Your task to perform on an android device: see sites visited before in the chrome app Image 0: 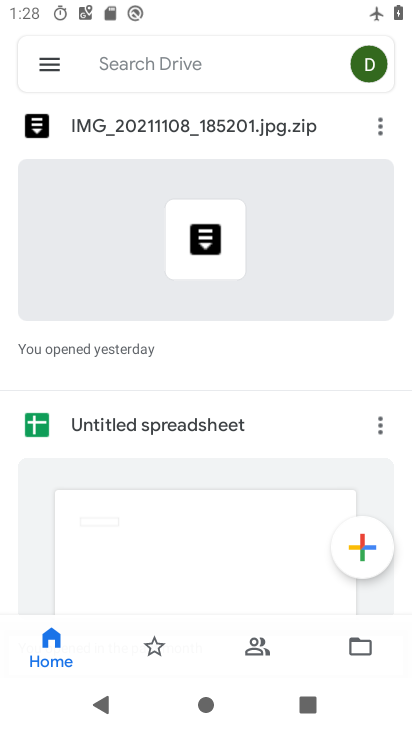
Step 0: press home button
Your task to perform on an android device: see sites visited before in the chrome app Image 1: 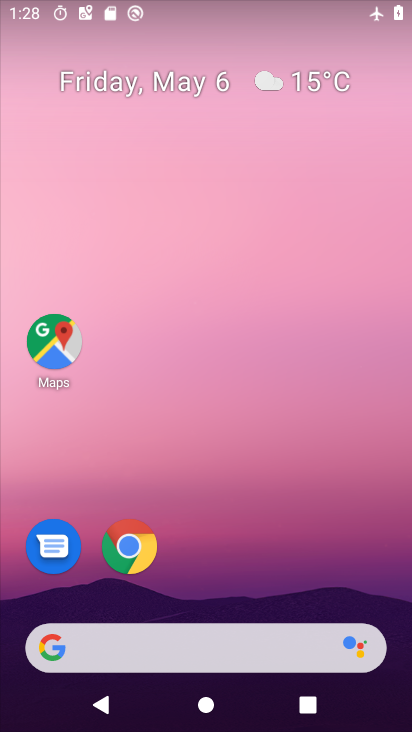
Step 1: click (129, 556)
Your task to perform on an android device: see sites visited before in the chrome app Image 2: 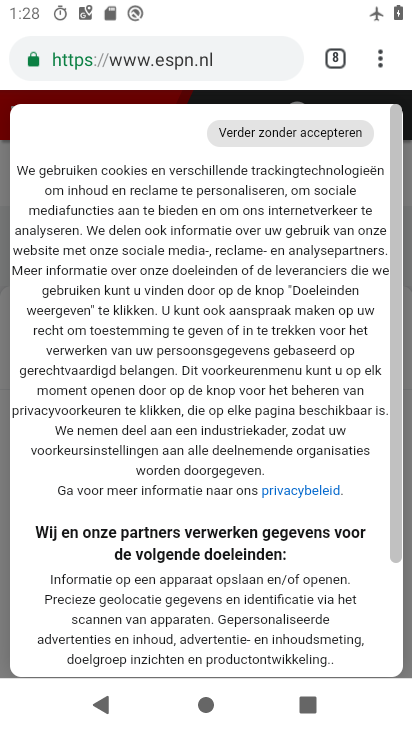
Step 2: click (384, 57)
Your task to perform on an android device: see sites visited before in the chrome app Image 3: 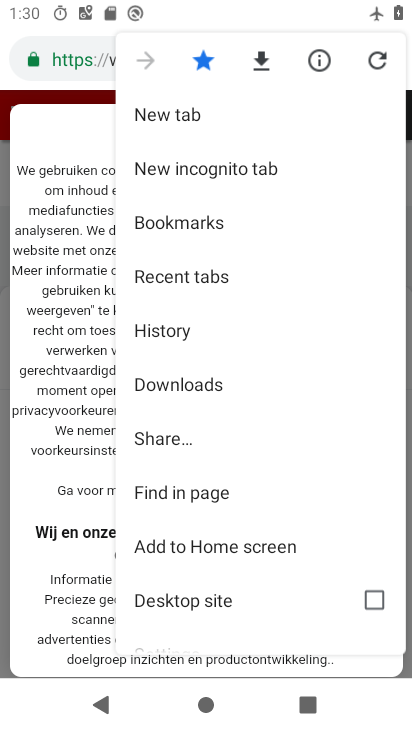
Step 3: click (194, 335)
Your task to perform on an android device: see sites visited before in the chrome app Image 4: 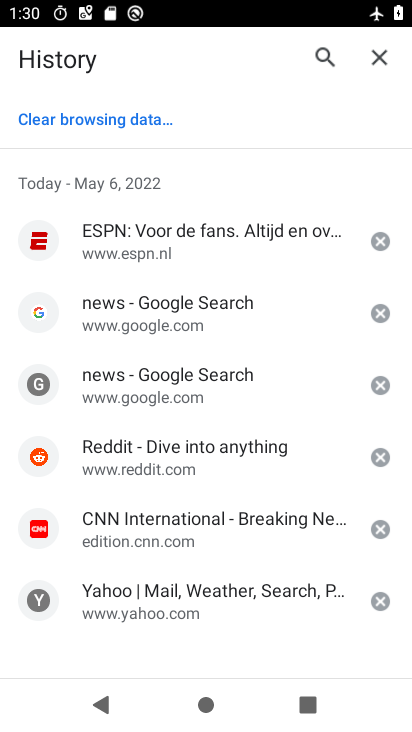
Step 4: task complete